Your task to perform on an android device: open app "Pinterest" (install if not already installed) Image 0: 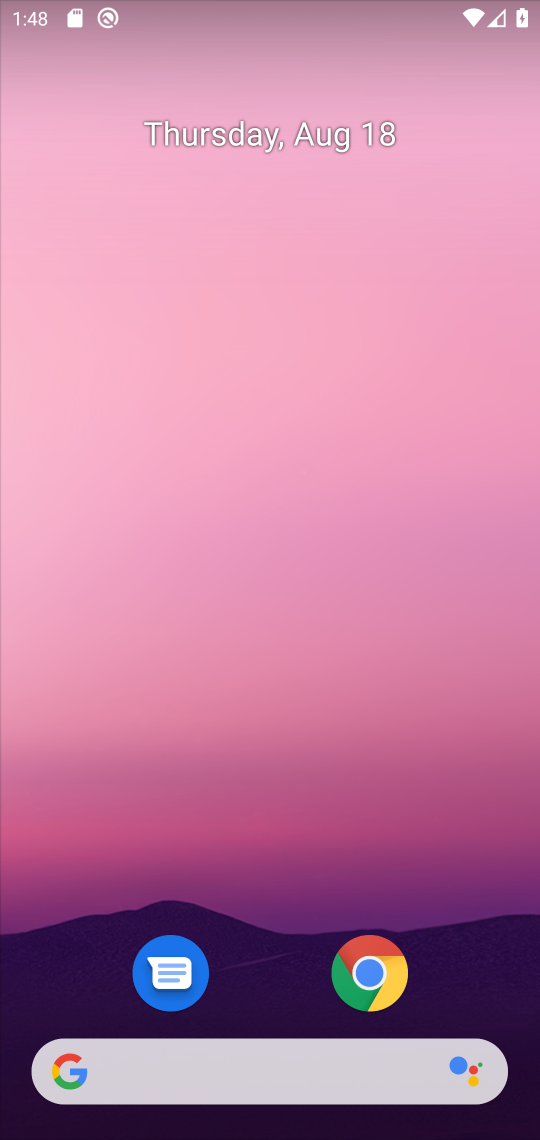
Step 0: drag from (267, 1013) to (244, 207)
Your task to perform on an android device: open app "Pinterest" (install if not already installed) Image 1: 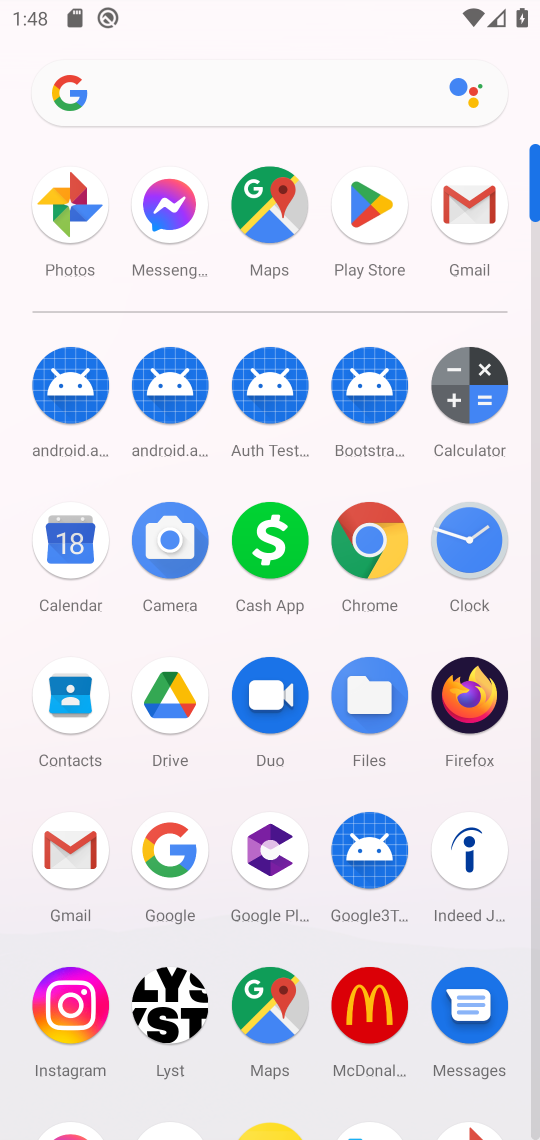
Step 1: click (365, 225)
Your task to perform on an android device: open app "Pinterest" (install if not already installed) Image 2: 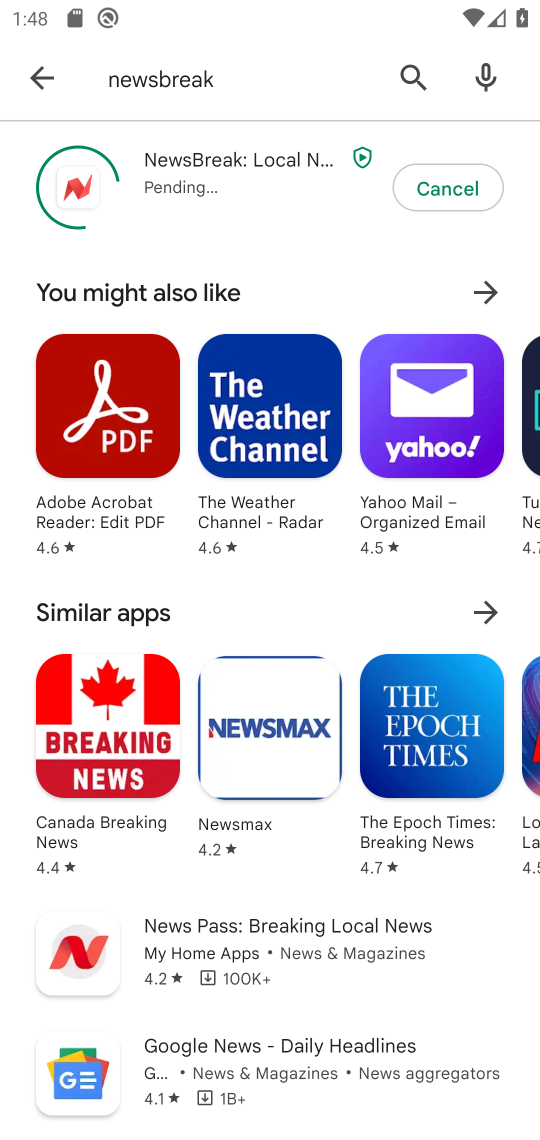
Step 2: click (414, 81)
Your task to perform on an android device: open app "Pinterest" (install if not already installed) Image 3: 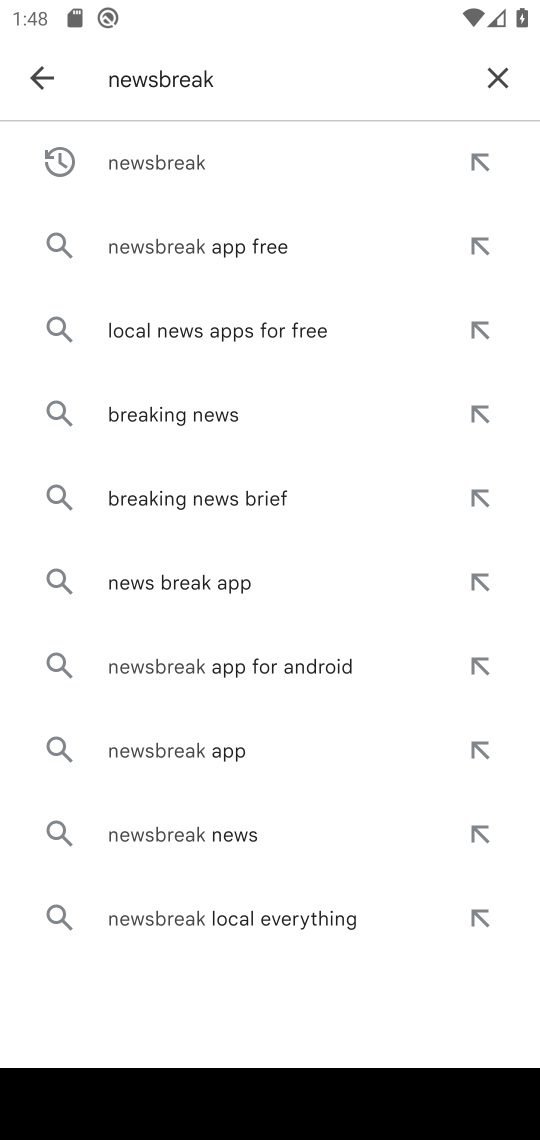
Step 3: click (503, 81)
Your task to perform on an android device: open app "Pinterest" (install if not already installed) Image 4: 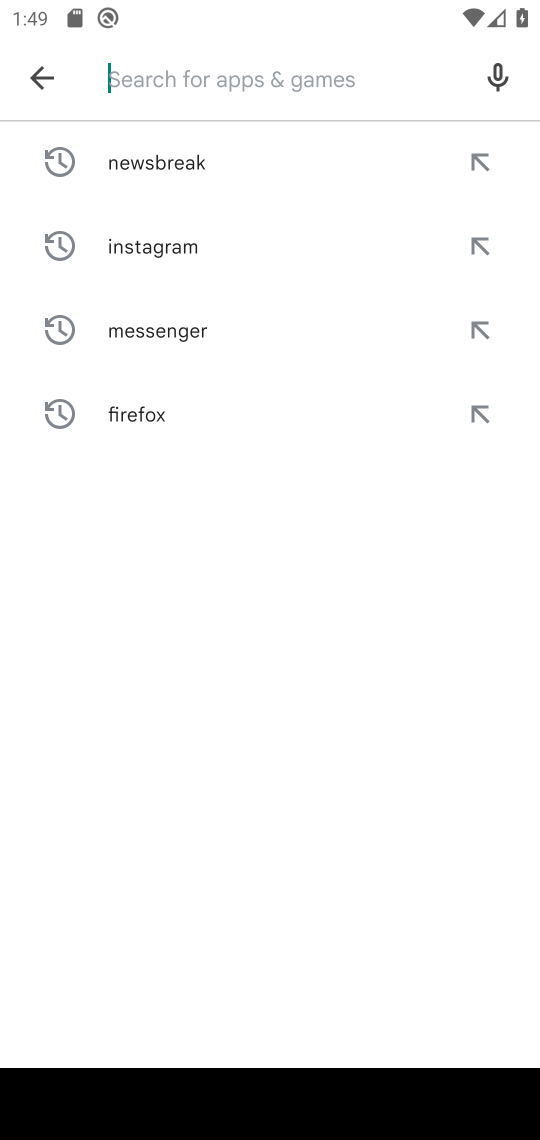
Step 4: type "pintrest"
Your task to perform on an android device: open app "Pinterest" (install if not already installed) Image 5: 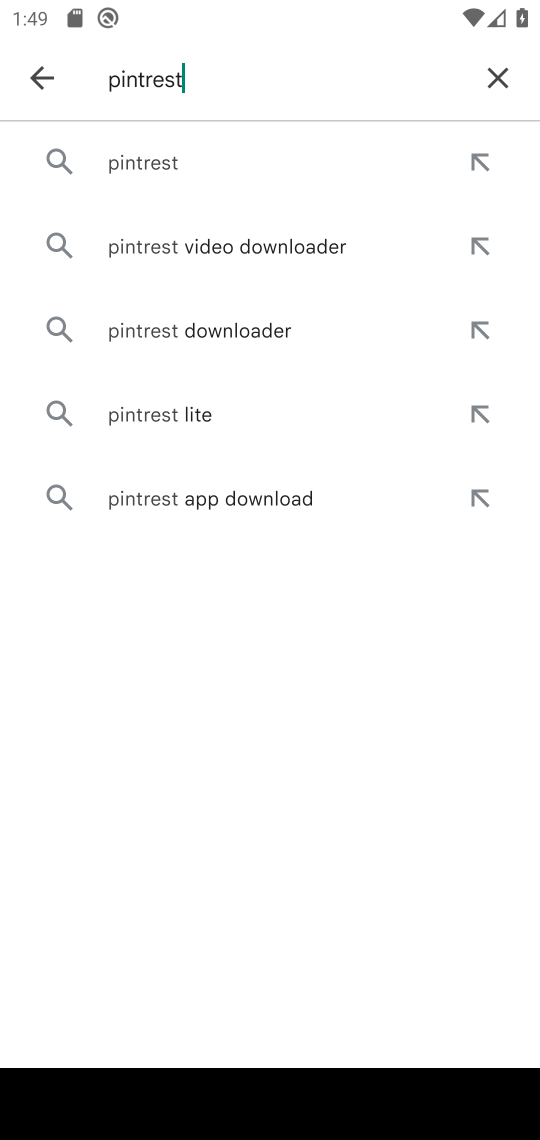
Step 5: click (213, 155)
Your task to perform on an android device: open app "Pinterest" (install if not already installed) Image 6: 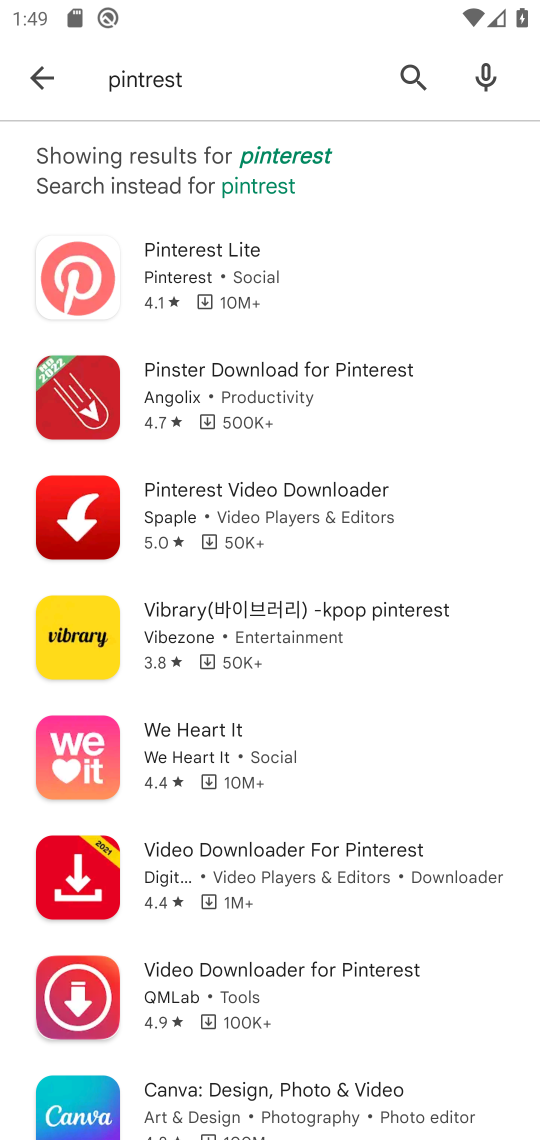
Step 6: click (330, 329)
Your task to perform on an android device: open app "Pinterest" (install if not already installed) Image 7: 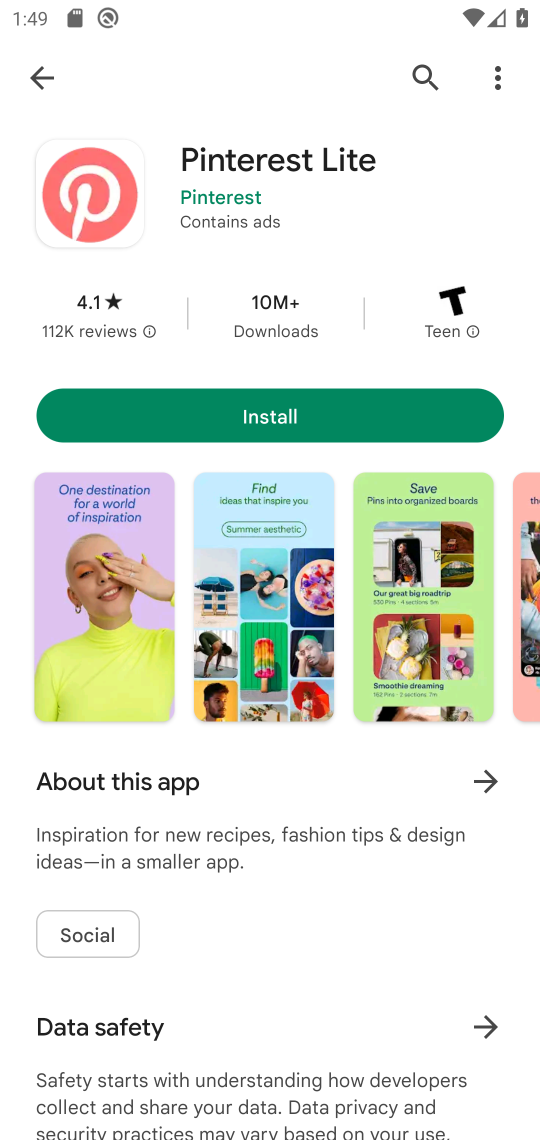
Step 7: click (413, 387)
Your task to perform on an android device: open app "Pinterest" (install if not already installed) Image 8: 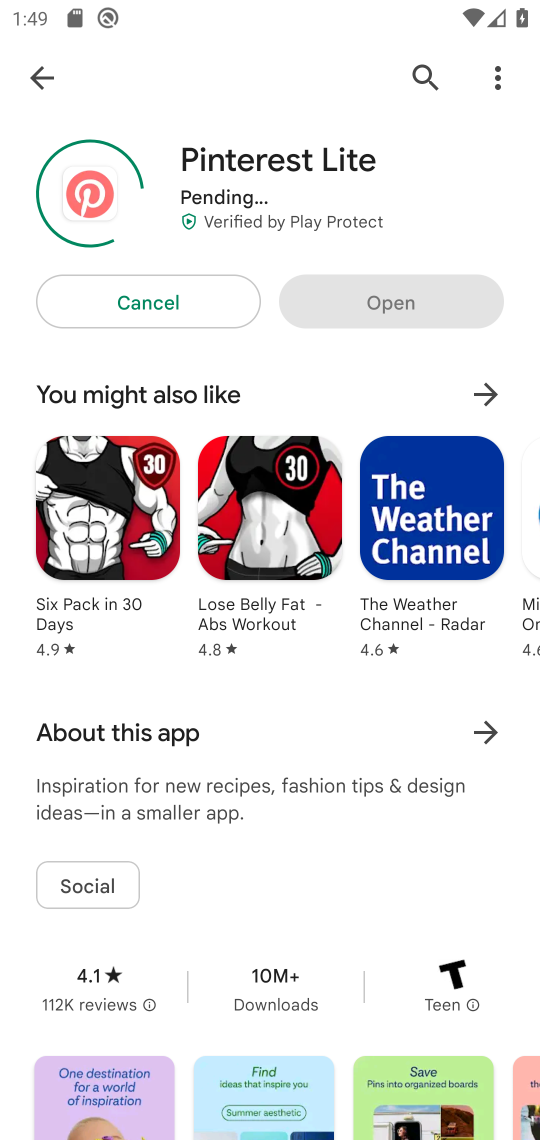
Step 8: task complete